Your task to perform on an android device: search for starred emails in the gmail app Image 0: 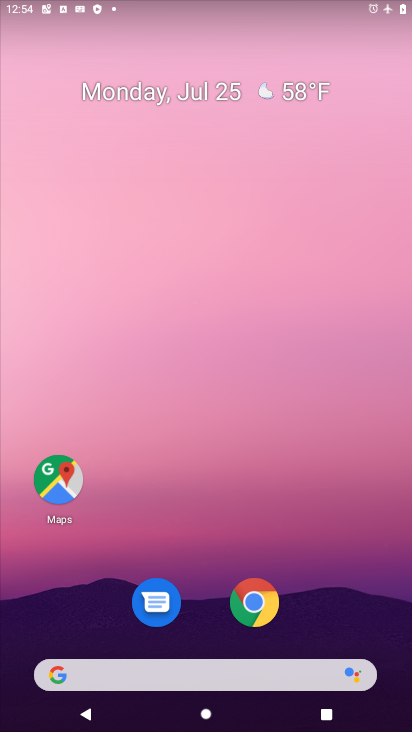
Step 0: drag from (204, 633) to (199, 94)
Your task to perform on an android device: search for starred emails in the gmail app Image 1: 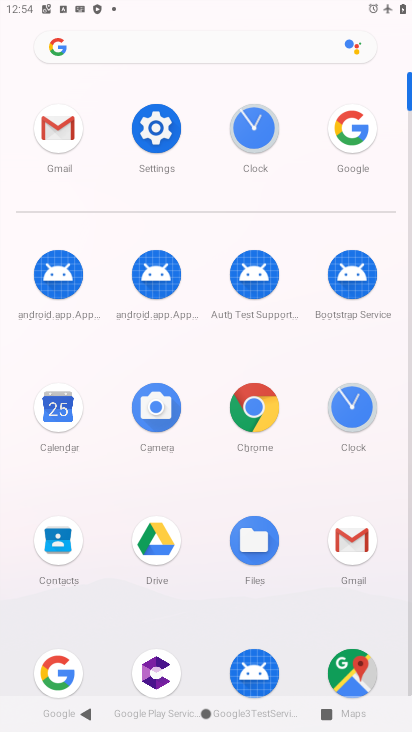
Step 1: click (83, 139)
Your task to perform on an android device: search for starred emails in the gmail app Image 2: 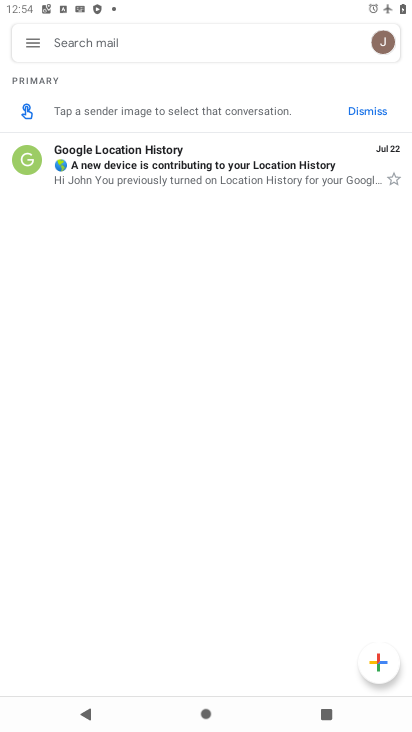
Step 2: click (41, 39)
Your task to perform on an android device: search for starred emails in the gmail app Image 3: 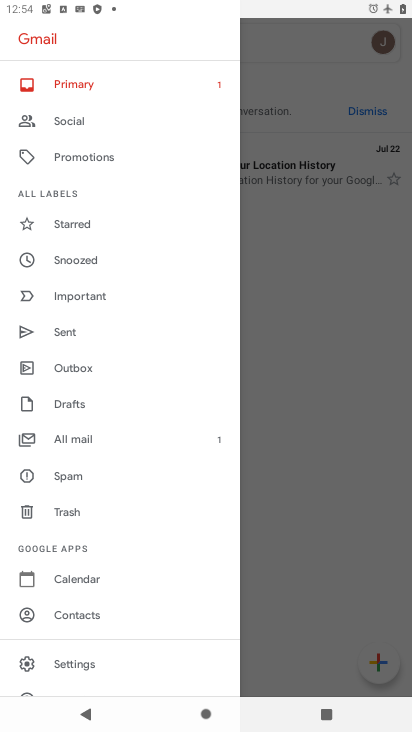
Step 3: click (98, 229)
Your task to perform on an android device: search for starred emails in the gmail app Image 4: 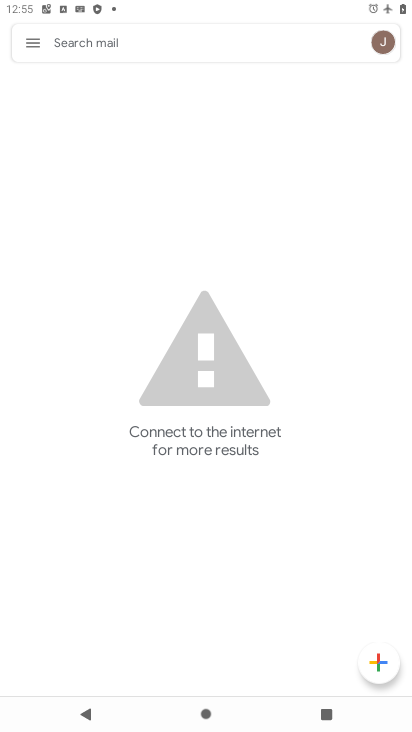
Step 4: task complete